Your task to perform on an android device: Go to wifi settings Image 0: 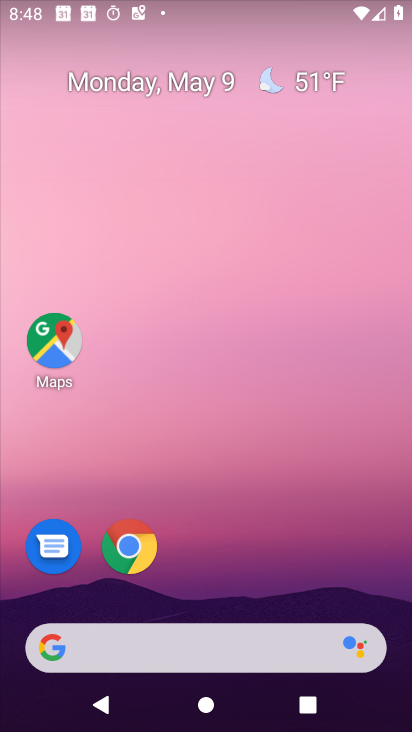
Step 0: drag from (249, 9) to (227, 475)
Your task to perform on an android device: Go to wifi settings Image 1: 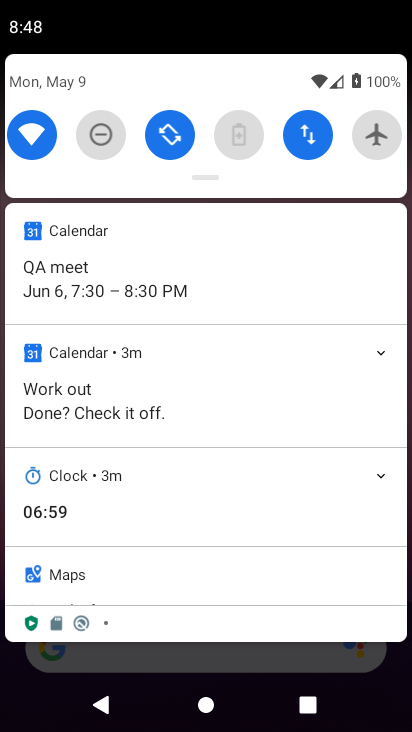
Step 1: click (35, 126)
Your task to perform on an android device: Go to wifi settings Image 2: 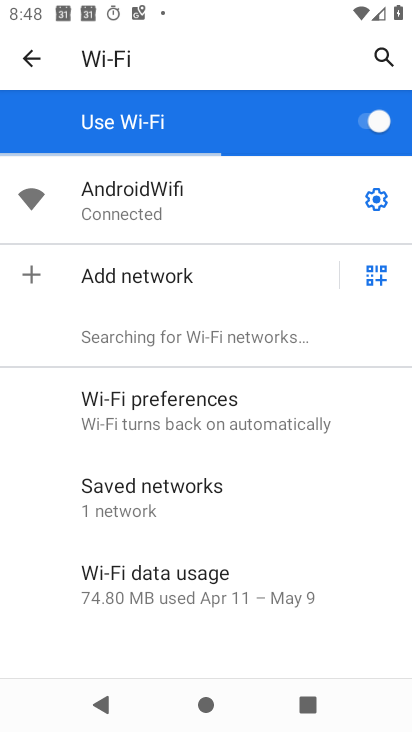
Step 2: task complete